Your task to perform on an android device: open the mobile data screen to see how much data has been used Image 0: 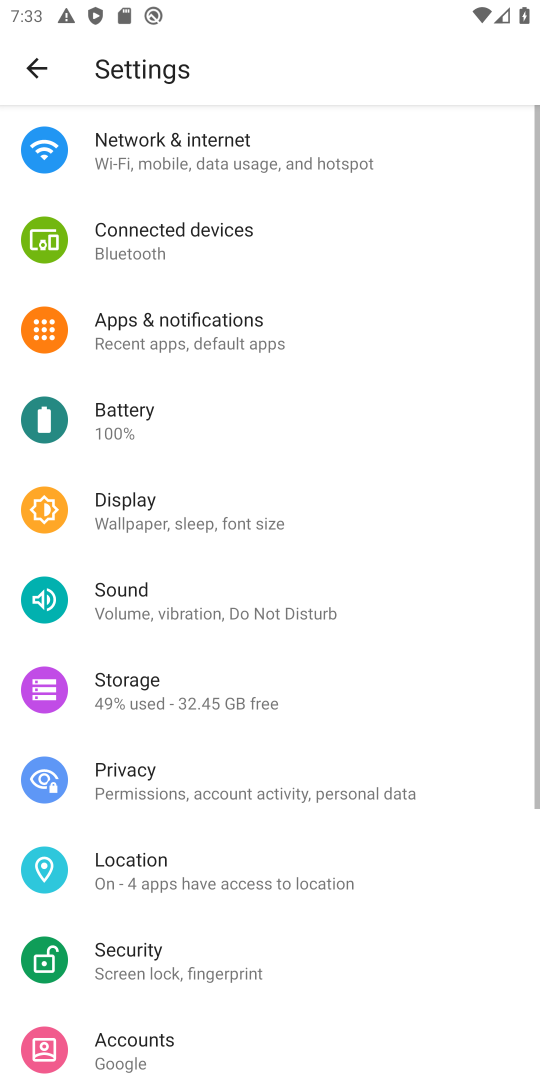
Step 0: press home button
Your task to perform on an android device: open the mobile data screen to see how much data has been used Image 1: 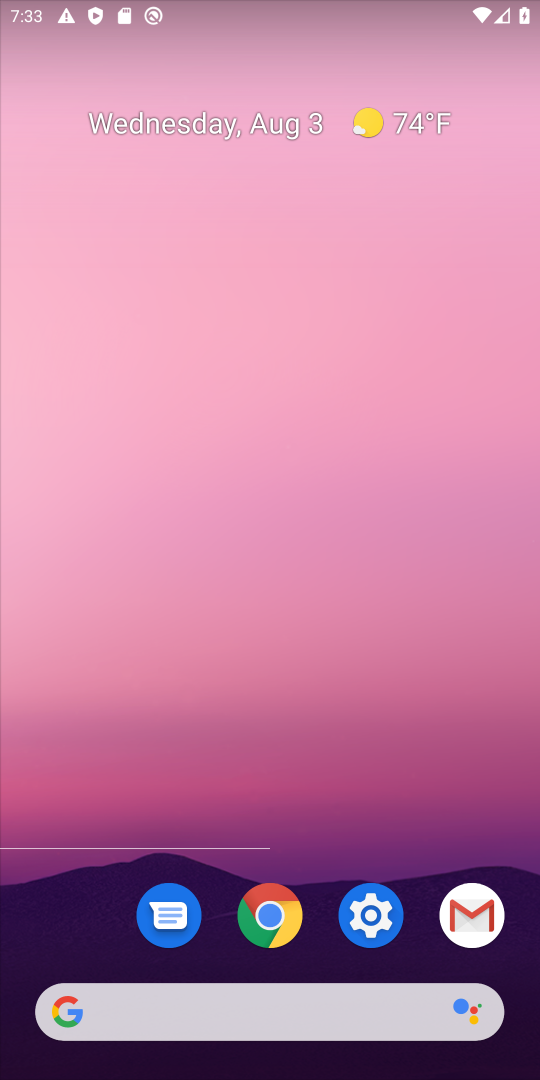
Step 1: drag from (393, 1034) to (257, 187)
Your task to perform on an android device: open the mobile data screen to see how much data has been used Image 2: 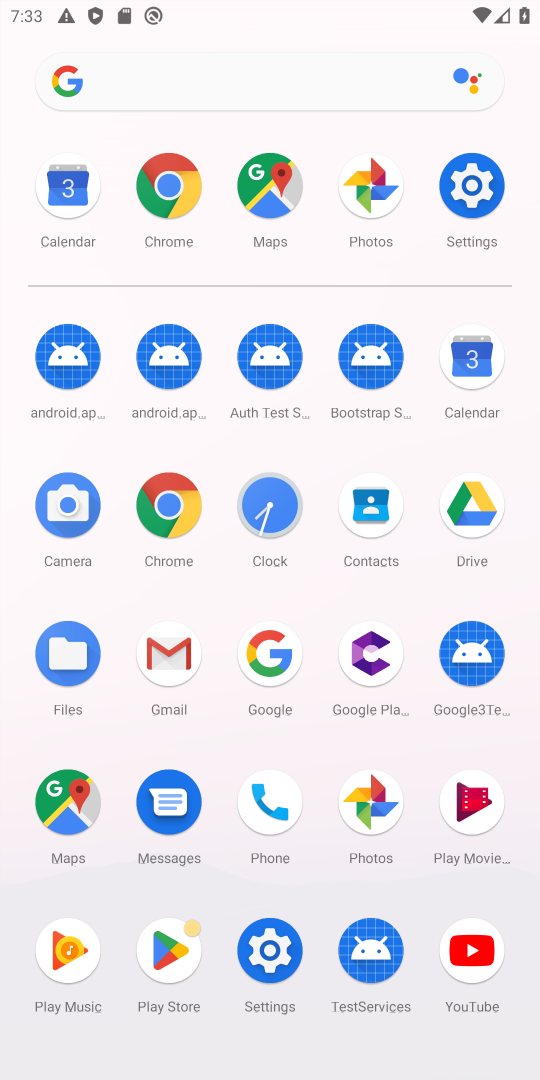
Step 2: click (472, 187)
Your task to perform on an android device: open the mobile data screen to see how much data has been used Image 3: 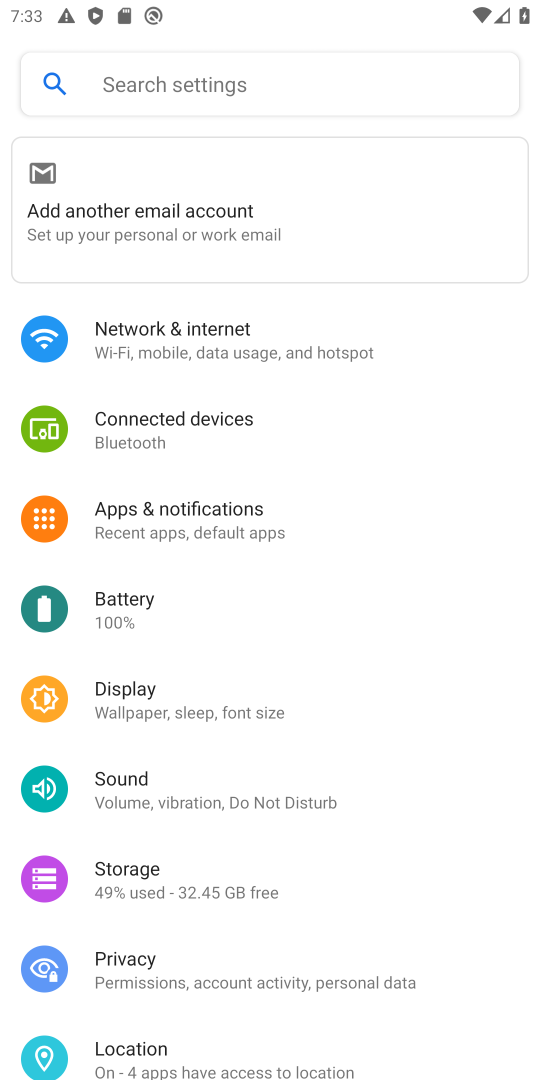
Step 3: click (173, 86)
Your task to perform on an android device: open the mobile data screen to see how much data has been used Image 4: 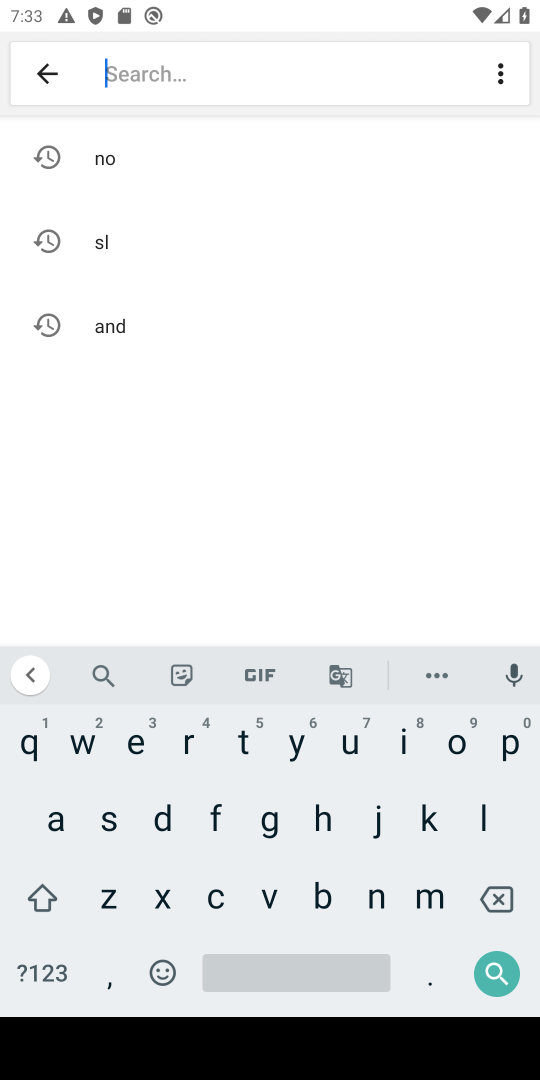
Step 4: click (158, 810)
Your task to perform on an android device: open the mobile data screen to see how much data has been used Image 5: 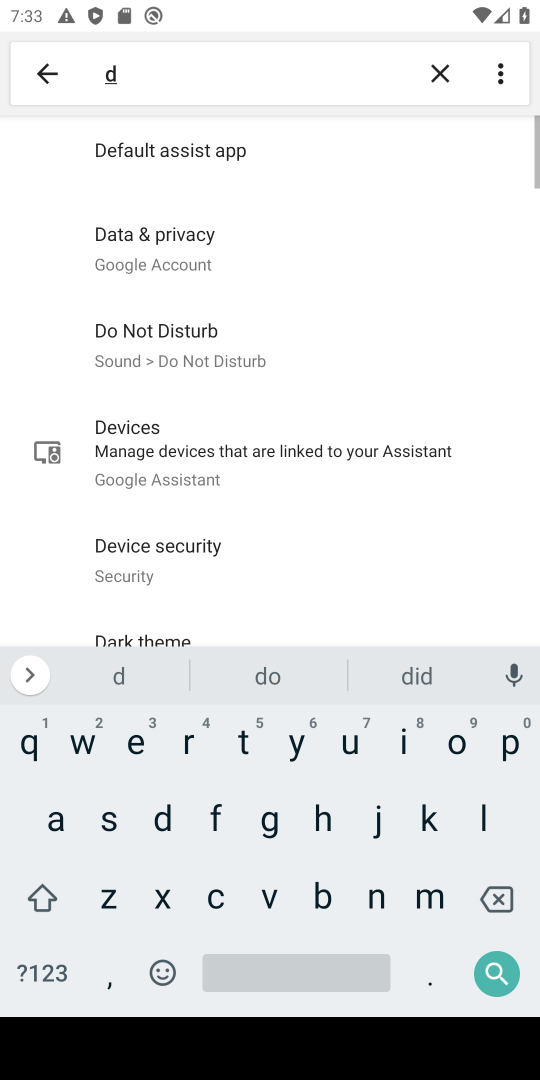
Step 5: click (49, 811)
Your task to perform on an android device: open the mobile data screen to see how much data has been used Image 6: 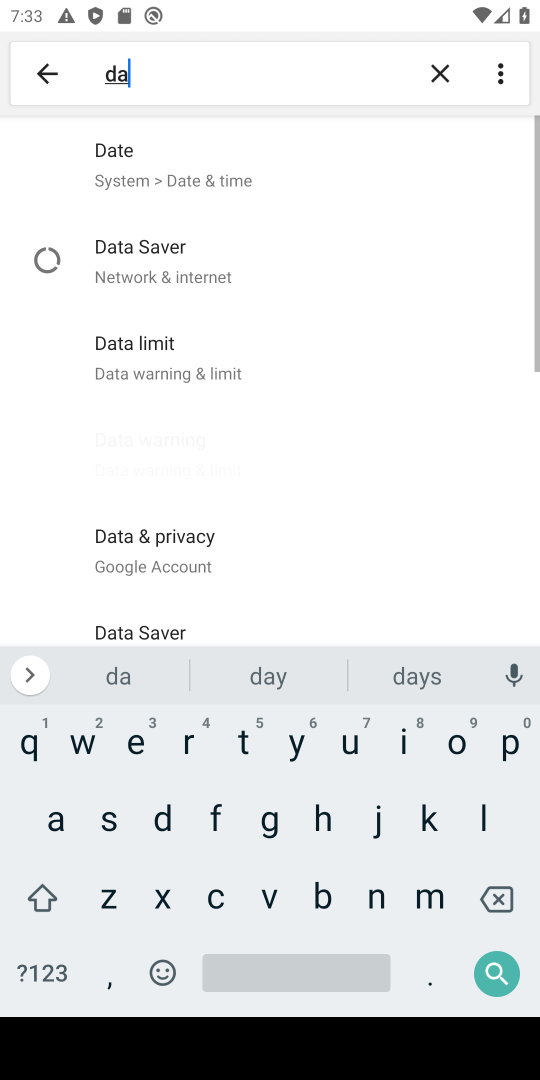
Step 6: click (239, 732)
Your task to perform on an android device: open the mobile data screen to see how much data has been used Image 7: 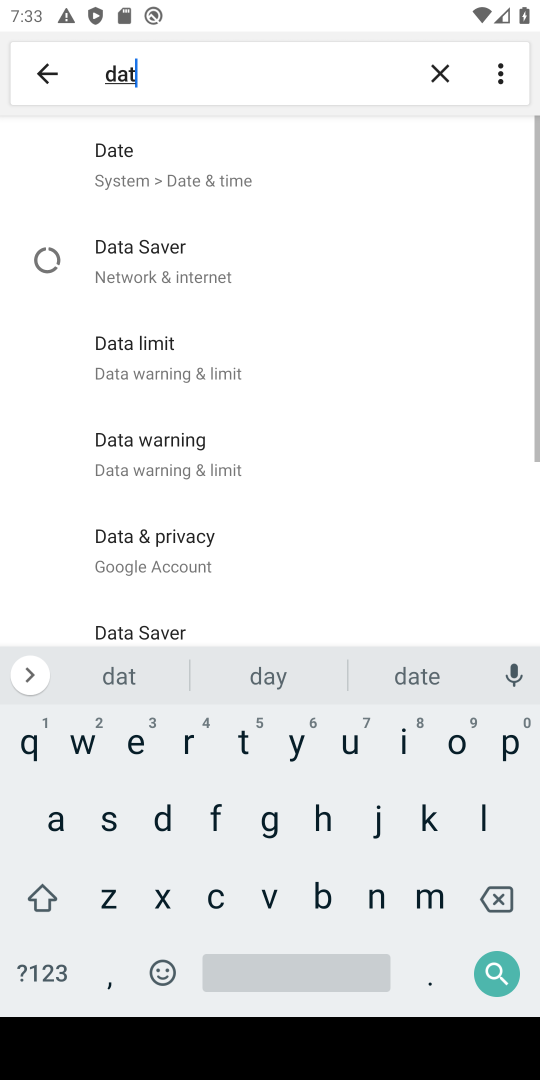
Step 7: click (44, 818)
Your task to perform on an android device: open the mobile data screen to see how much data has been used Image 8: 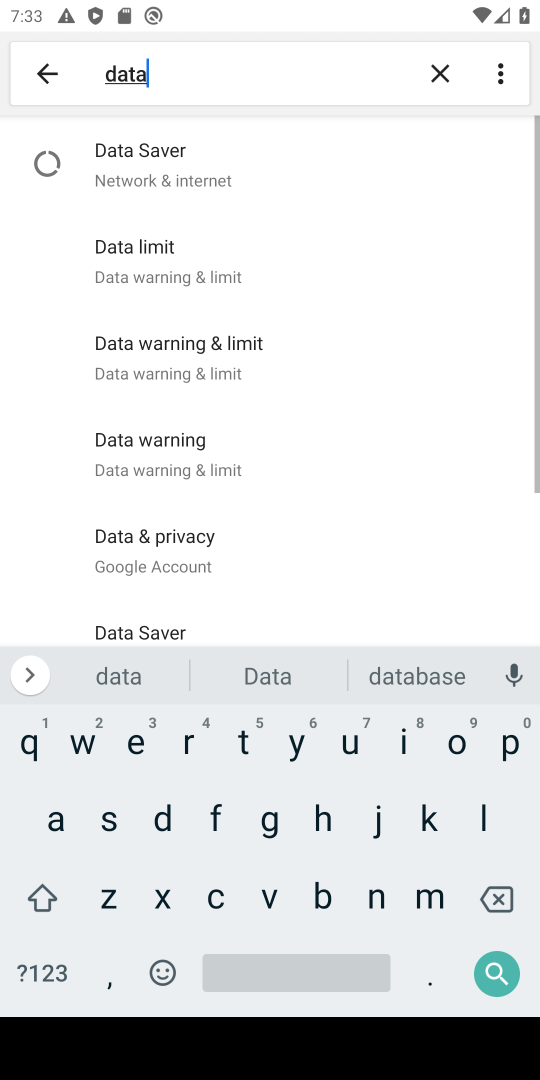
Step 8: click (271, 960)
Your task to perform on an android device: open the mobile data screen to see how much data has been used Image 9: 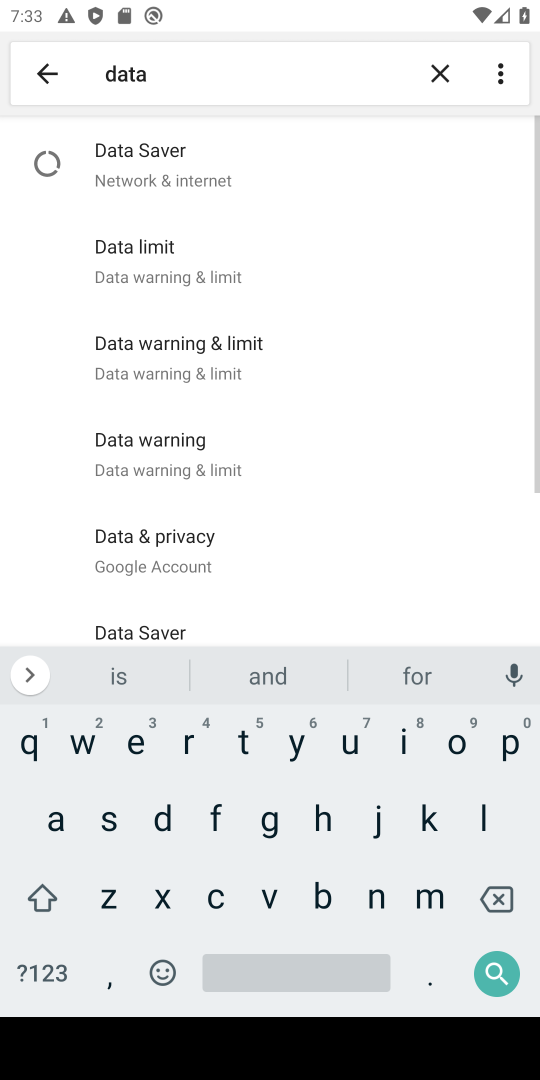
Step 9: click (345, 744)
Your task to perform on an android device: open the mobile data screen to see how much data has been used Image 10: 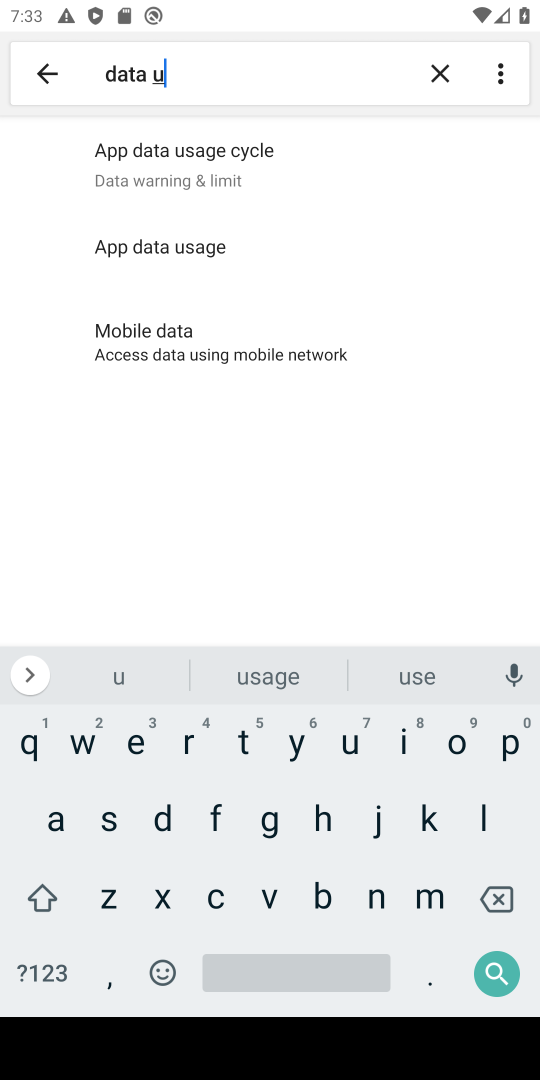
Step 10: click (165, 240)
Your task to perform on an android device: open the mobile data screen to see how much data has been used Image 11: 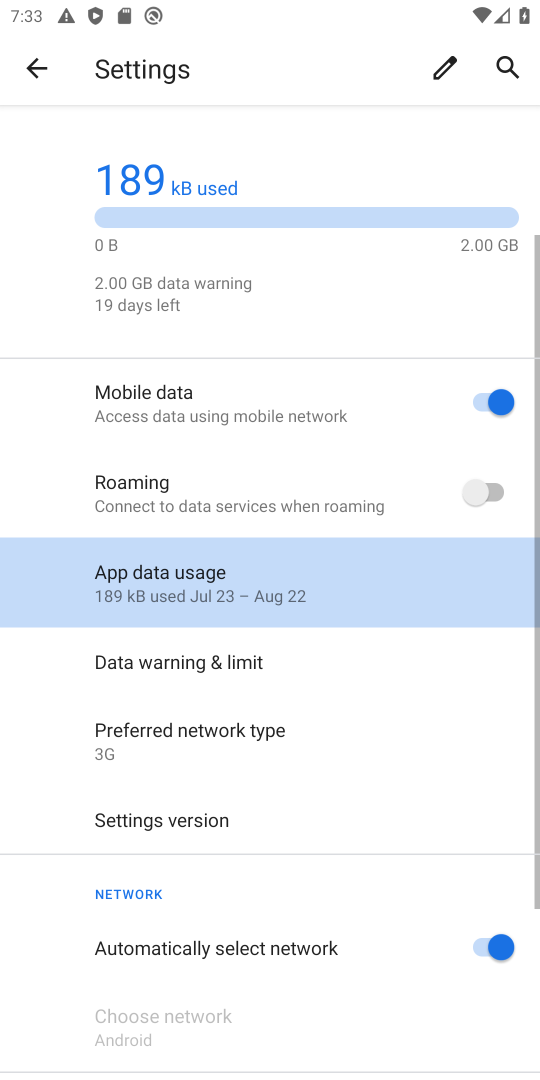
Step 11: click (253, 570)
Your task to perform on an android device: open the mobile data screen to see how much data has been used Image 12: 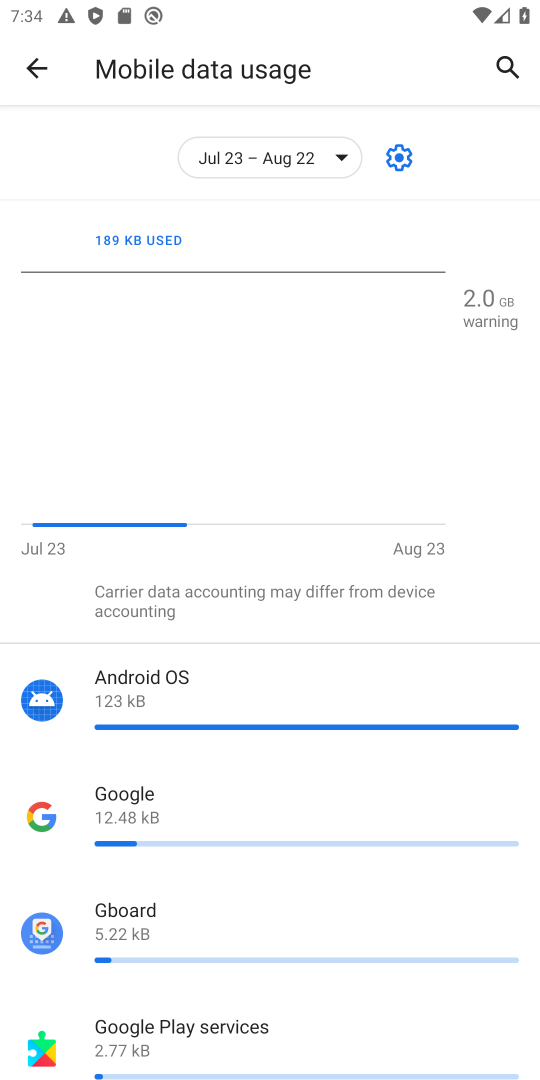
Step 12: task complete